Your task to perform on an android device: clear all cookies in the chrome app Image 0: 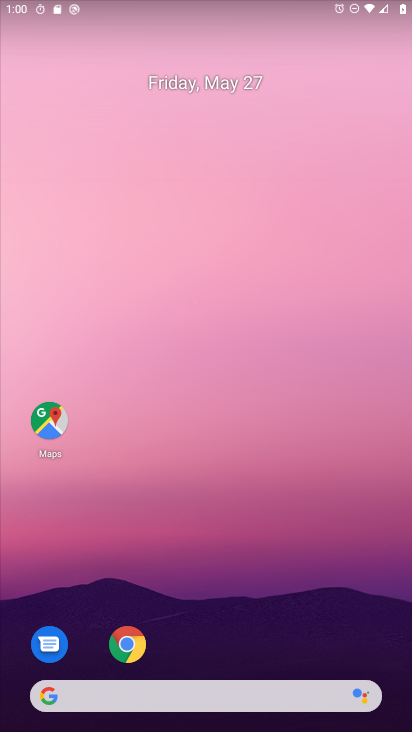
Step 0: click (147, 643)
Your task to perform on an android device: clear all cookies in the chrome app Image 1: 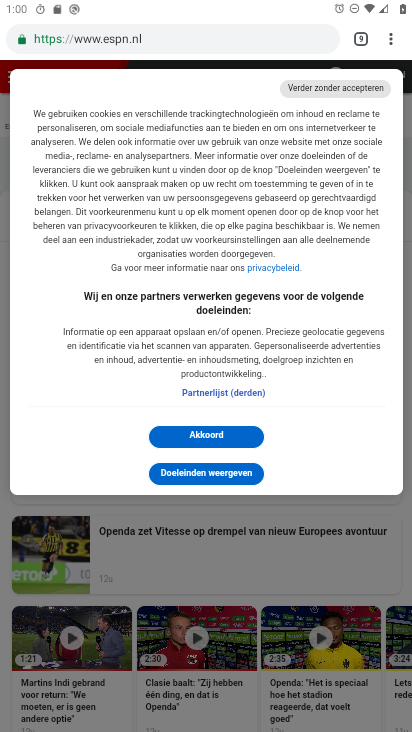
Step 1: click (212, 435)
Your task to perform on an android device: clear all cookies in the chrome app Image 2: 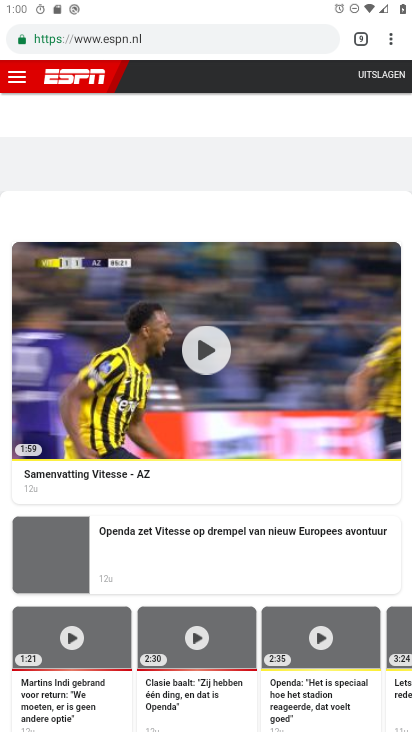
Step 2: click (383, 35)
Your task to perform on an android device: clear all cookies in the chrome app Image 3: 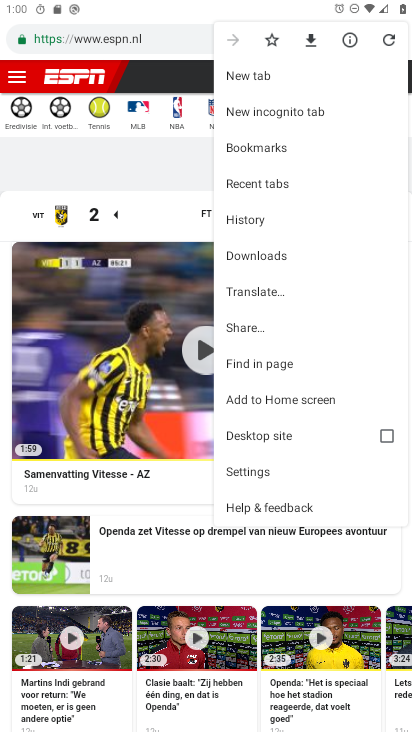
Step 3: click (285, 216)
Your task to perform on an android device: clear all cookies in the chrome app Image 4: 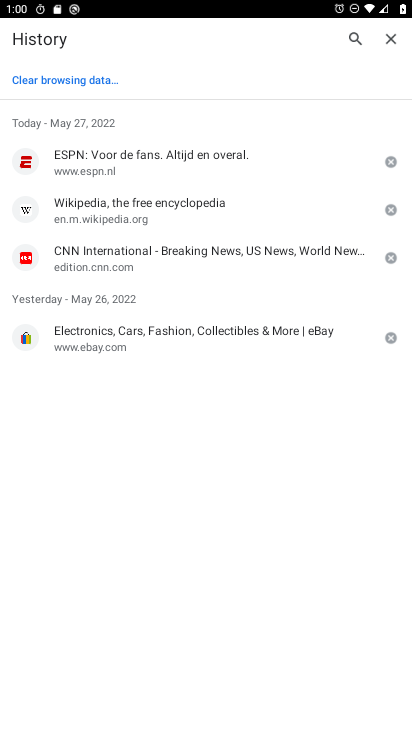
Step 4: click (74, 84)
Your task to perform on an android device: clear all cookies in the chrome app Image 5: 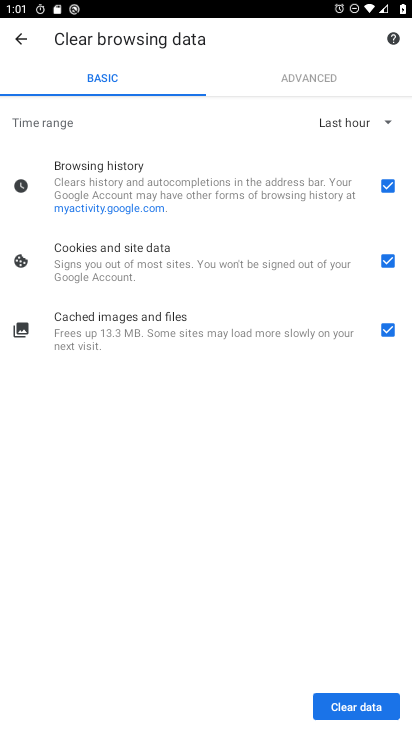
Step 5: click (369, 702)
Your task to perform on an android device: clear all cookies in the chrome app Image 6: 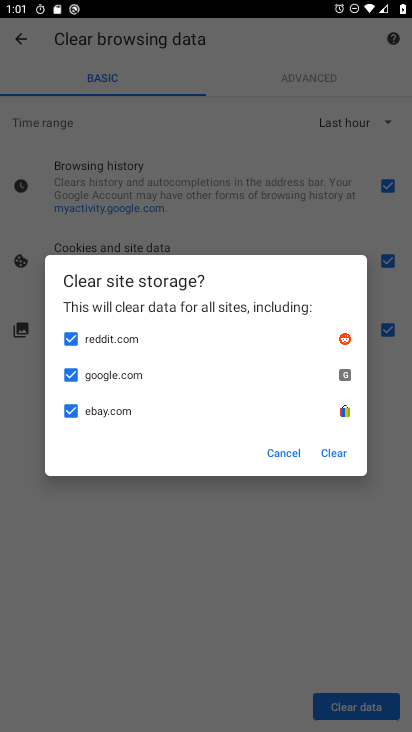
Step 6: click (334, 454)
Your task to perform on an android device: clear all cookies in the chrome app Image 7: 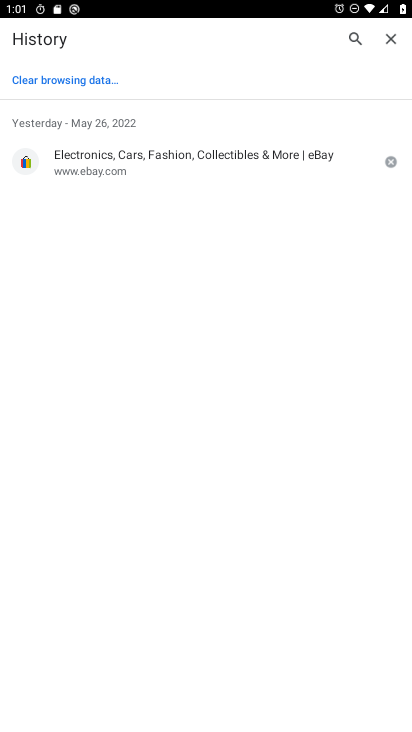
Step 7: click (51, 79)
Your task to perform on an android device: clear all cookies in the chrome app Image 8: 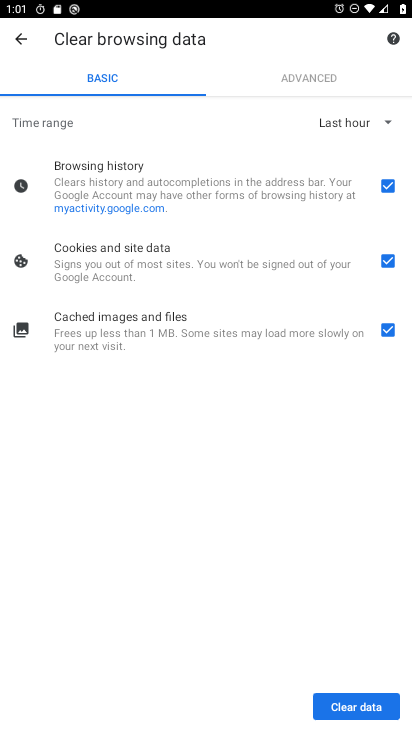
Step 8: click (348, 700)
Your task to perform on an android device: clear all cookies in the chrome app Image 9: 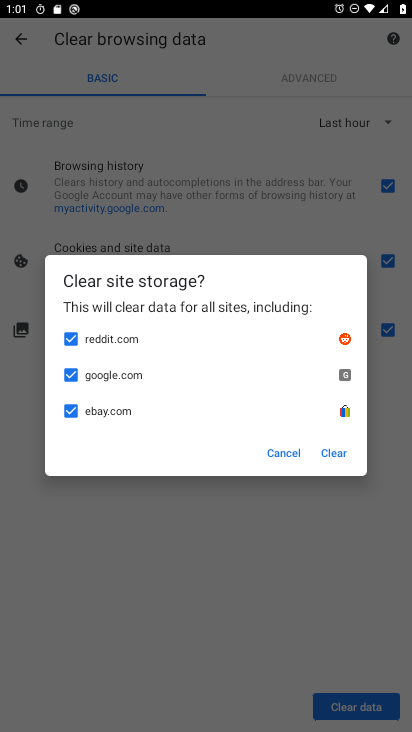
Step 9: click (345, 453)
Your task to perform on an android device: clear all cookies in the chrome app Image 10: 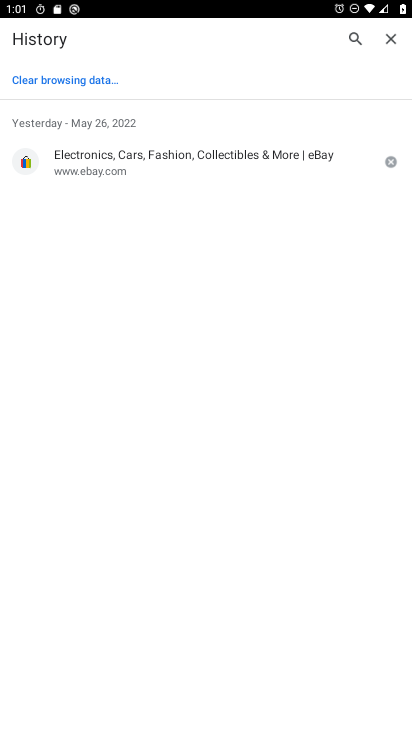
Step 10: task complete